Your task to perform on an android device: change the clock display to digital Image 0: 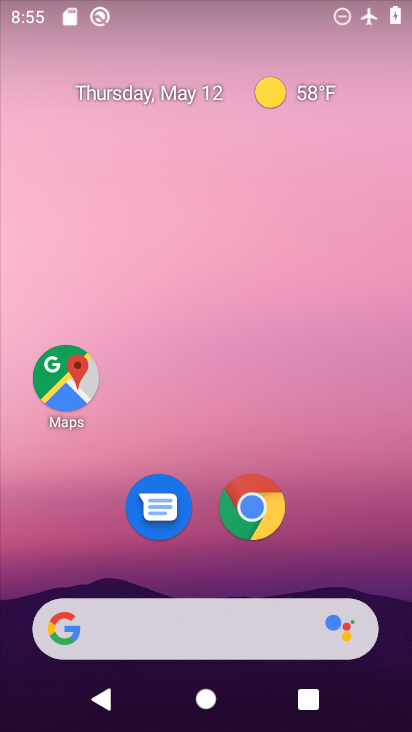
Step 0: drag from (215, 576) to (223, 152)
Your task to perform on an android device: change the clock display to digital Image 1: 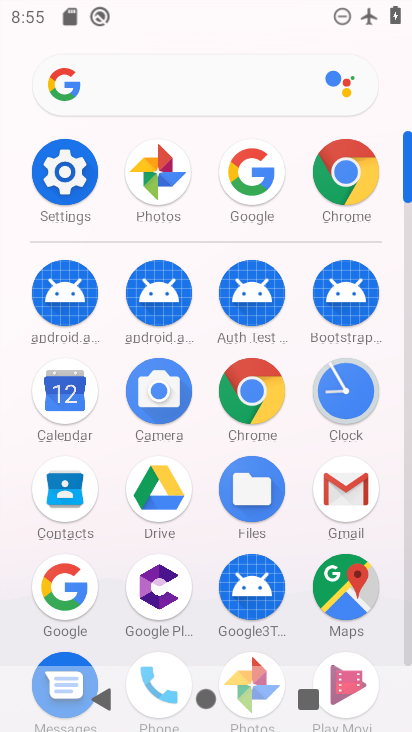
Step 1: click (355, 411)
Your task to perform on an android device: change the clock display to digital Image 2: 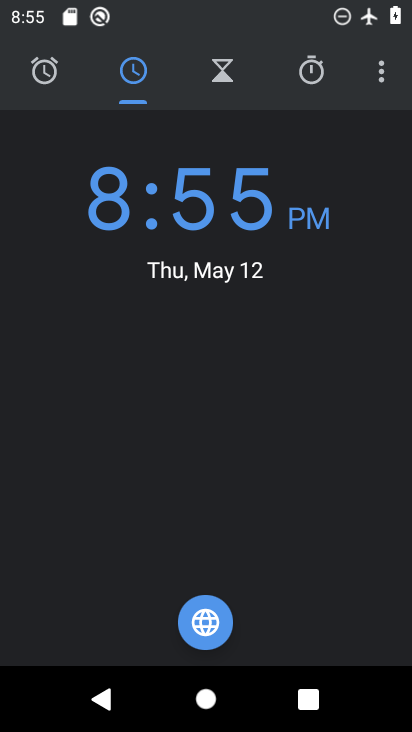
Step 2: click (381, 59)
Your task to perform on an android device: change the clock display to digital Image 3: 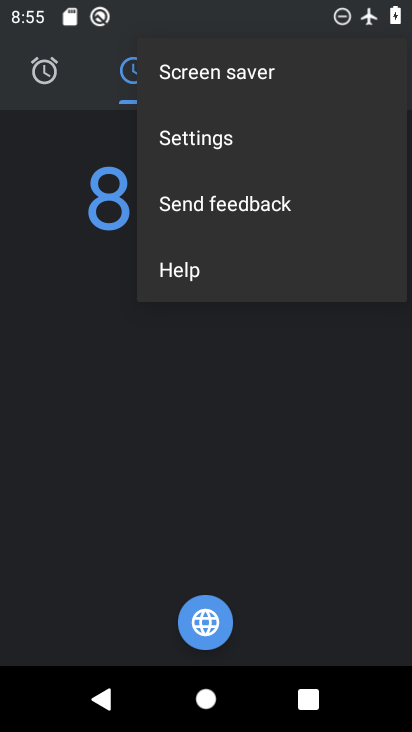
Step 3: click (184, 143)
Your task to perform on an android device: change the clock display to digital Image 4: 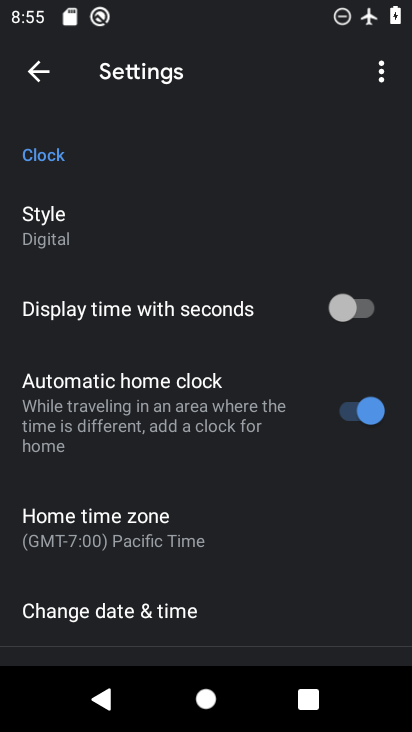
Step 4: click (83, 215)
Your task to perform on an android device: change the clock display to digital Image 5: 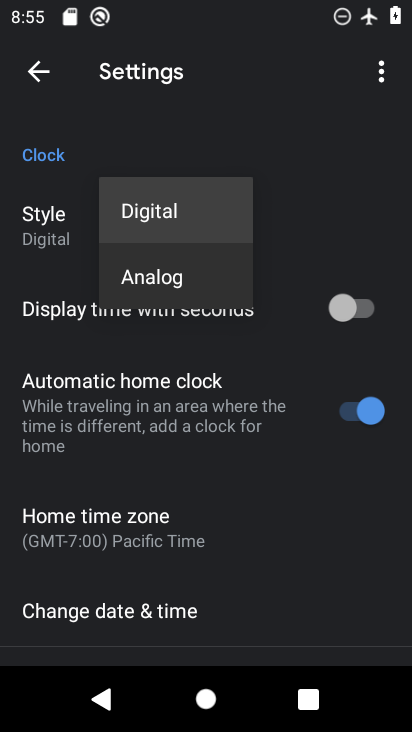
Step 5: task complete